Your task to perform on an android device: Open the phone app and click the voicemail tab. Image 0: 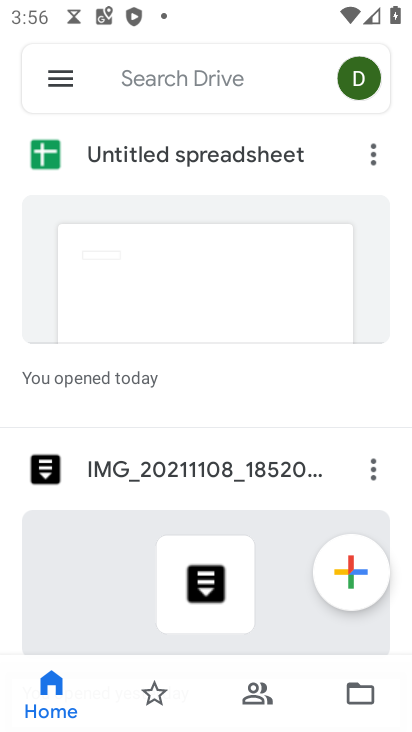
Step 0: press home button
Your task to perform on an android device: Open the phone app and click the voicemail tab. Image 1: 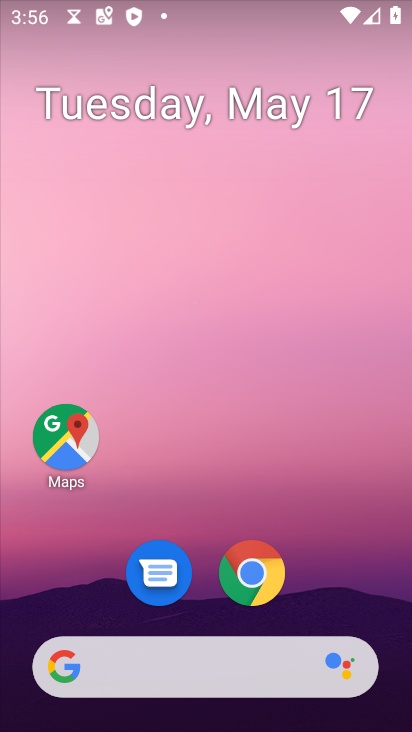
Step 1: drag from (315, 615) to (254, 300)
Your task to perform on an android device: Open the phone app and click the voicemail tab. Image 2: 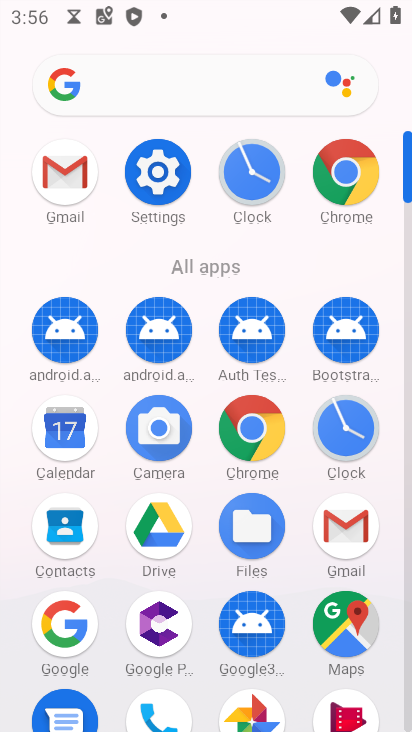
Step 2: click (171, 714)
Your task to perform on an android device: Open the phone app and click the voicemail tab. Image 3: 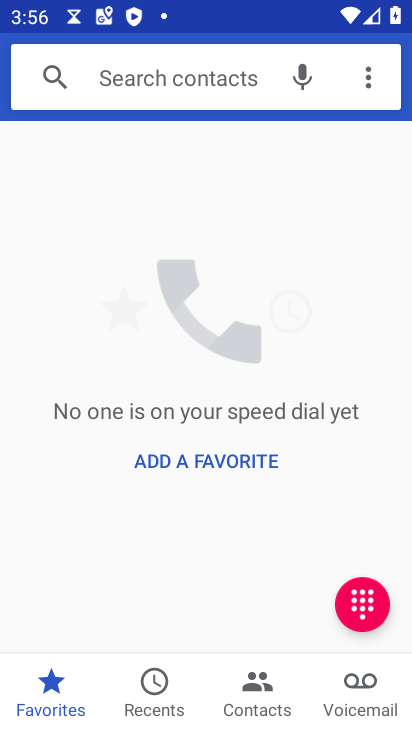
Step 3: click (341, 687)
Your task to perform on an android device: Open the phone app and click the voicemail tab. Image 4: 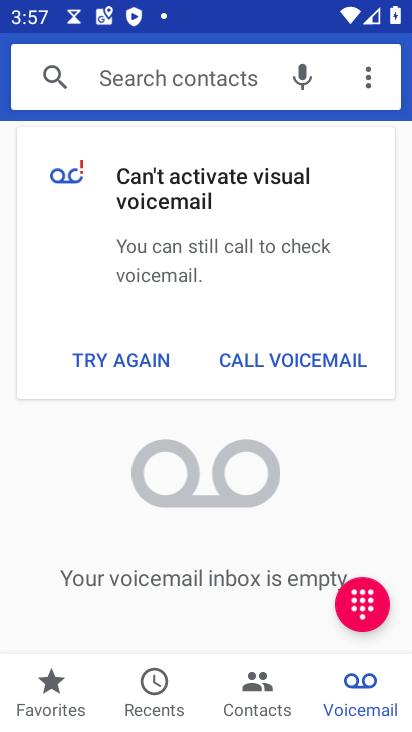
Step 4: task complete